Your task to perform on an android device: refresh tabs in the chrome app Image 0: 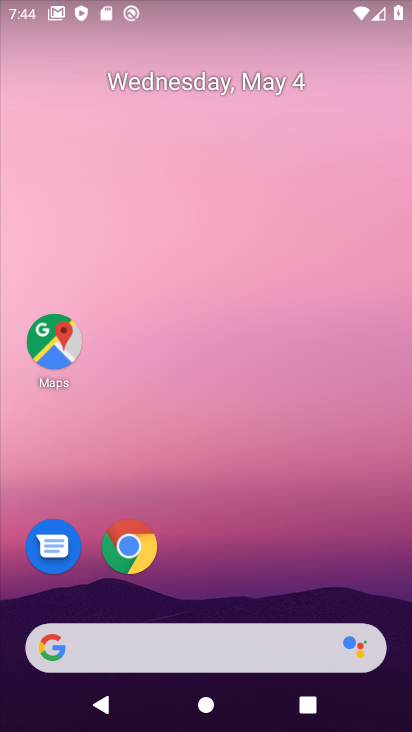
Step 0: drag from (220, 718) to (130, 548)
Your task to perform on an android device: refresh tabs in the chrome app Image 1: 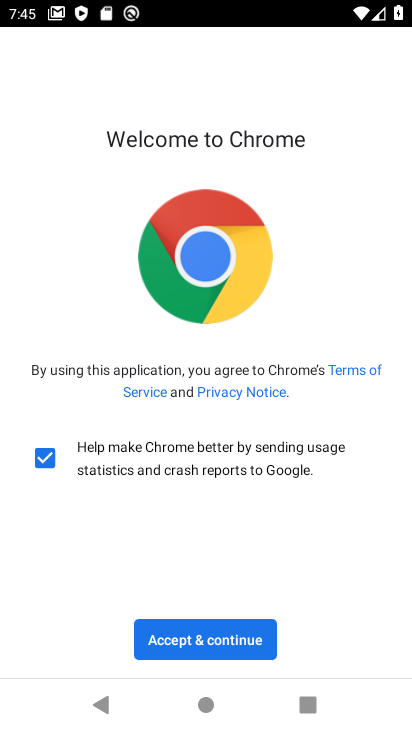
Step 1: click (209, 642)
Your task to perform on an android device: refresh tabs in the chrome app Image 2: 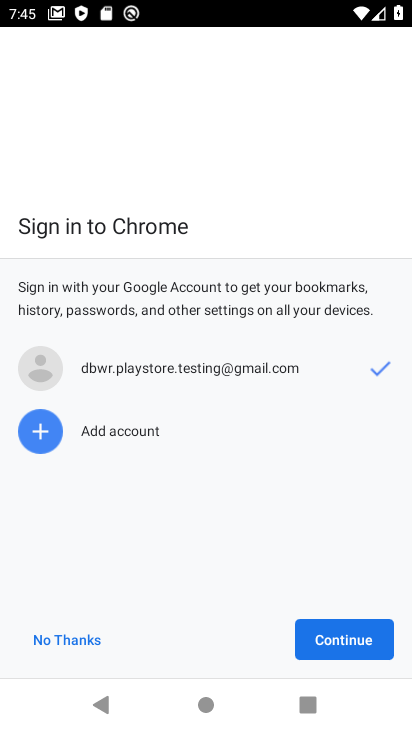
Step 2: click (68, 640)
Your task to perform on an android device: refresh tabs in the chrome app Image 3: 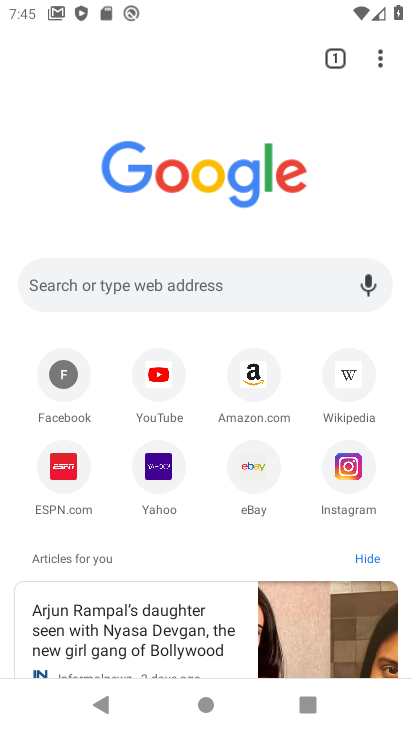
Step 3: click (381, 60)
Your task to perform on an android device: refresh tabs in the chrome app Image 4: 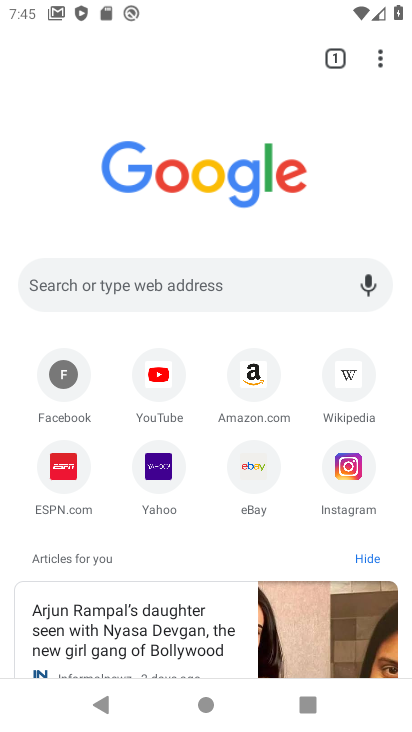
Step 4: click (381, 59)
Your task to perform on an android device: refresh tabs in the chrome app Image 5: 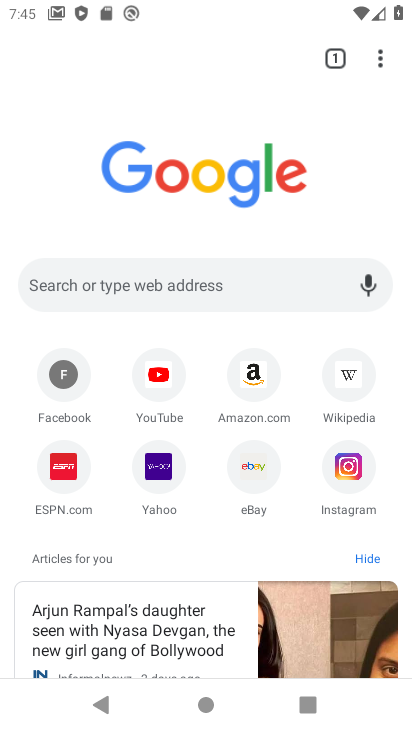
Step 5: click (384, 58)
Your task to perform on an android device: refresh tabs in the chrome app Image 6: 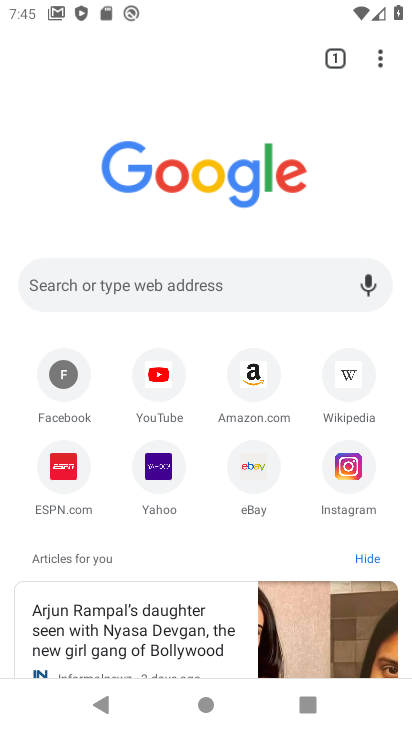
Step 6: click (379, 58)
Your task to perform on an android device: refresh tabs in the chrome app Image 7: 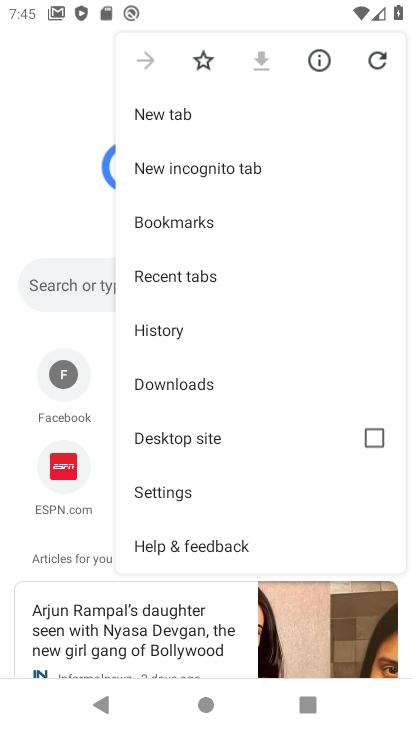
Step 7: click (382, 60)
Your task to perform on an android device: refresh tabs in the chrome app Image 8: 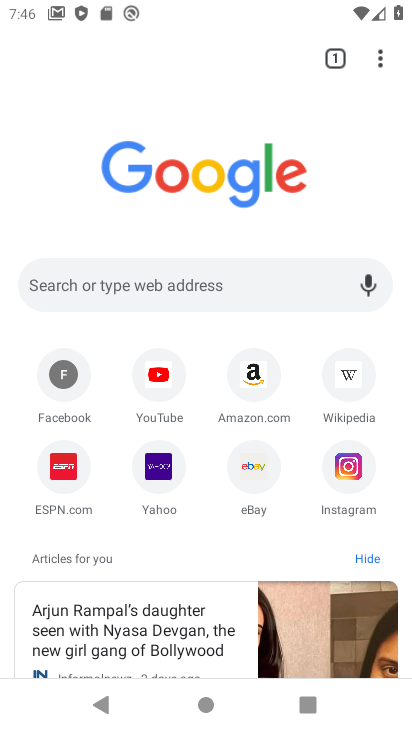
Step 8: task complete